Your task to perform on an android device: Find coffee shops on Maps Image 0: 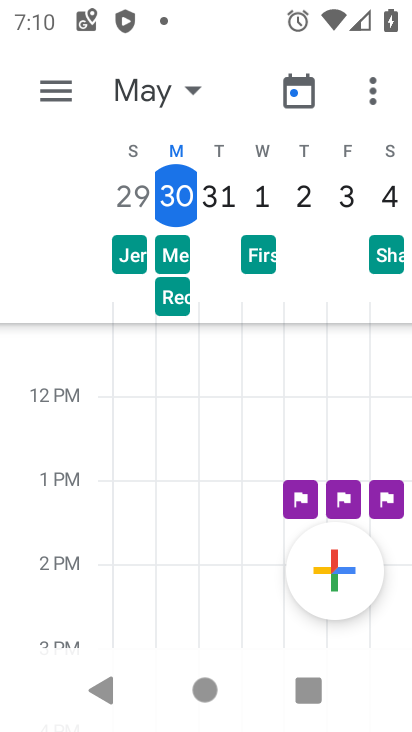
Step 0: press home button
Your task to perform on an android device: Find coffee shops on Maps Image 1: 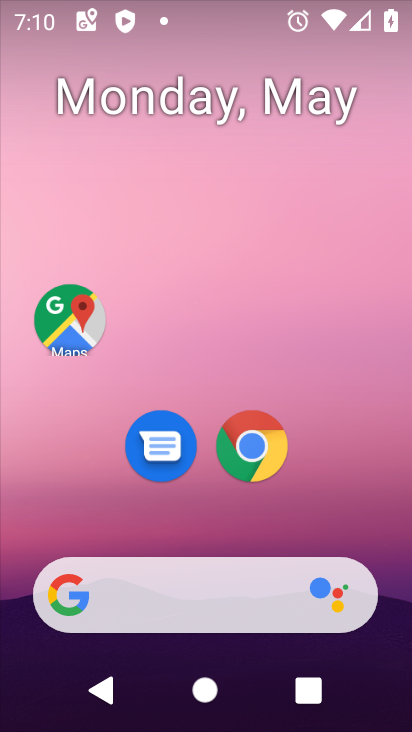
Step 1: click (64, 318)
Your task to perform on an android device: Find coffee shops on Maps Image 2: 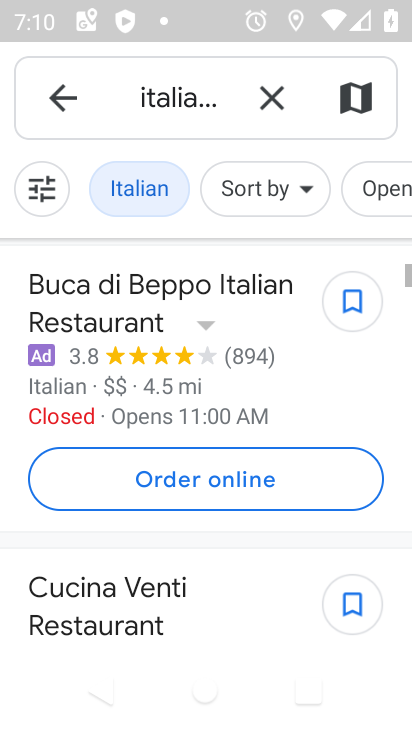
Step 2: click (265, 93)
Your task to perform on an android device: Find coffee shops on Maps Image 3: 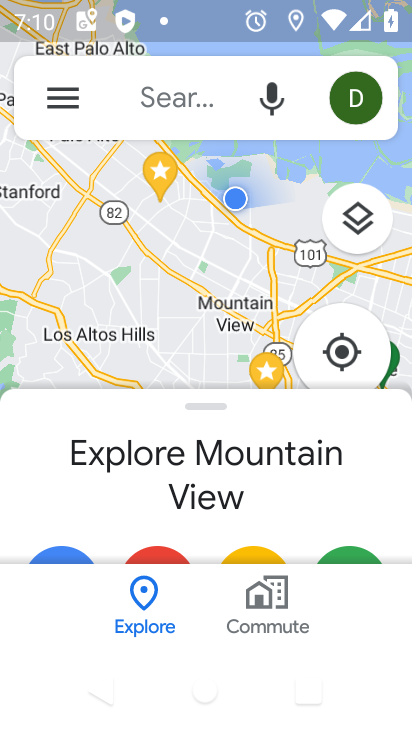
Step 3: click (184, 97)
Your task to perform on an android device: Find coffee shops on Maps Image 4: 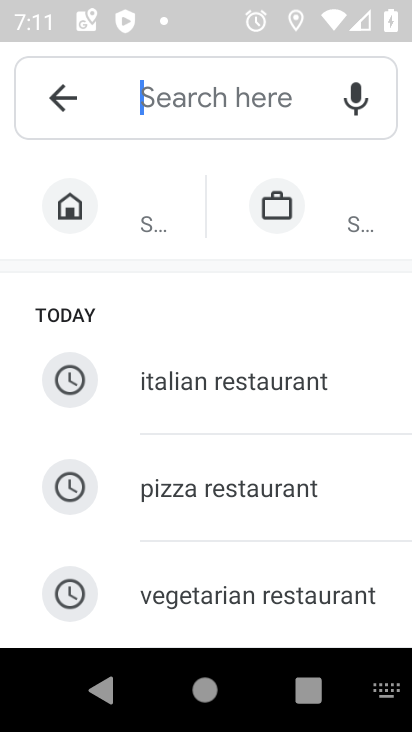
Step 4: type "coffee"
Your task to perform on an android device: Find coffee shops on Maps Image 5: 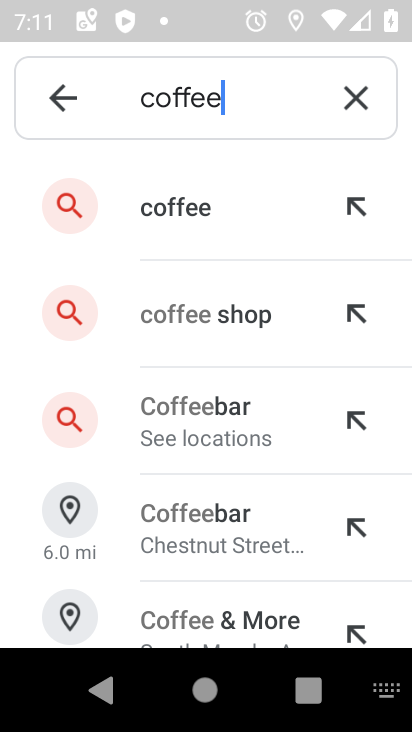
Step 5: click (230, 308)
Your task to perform on an android device: Find coffee shops on Maps Image 6: 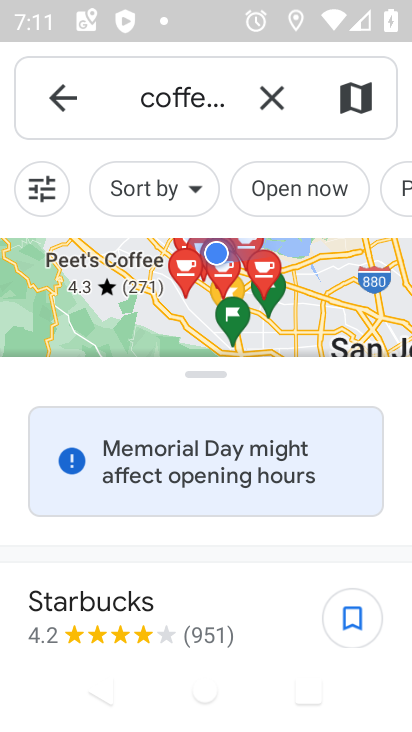
Step 6: task complete